Your task to perform on an android device: Is it going to rain tomorrow? Image 0: 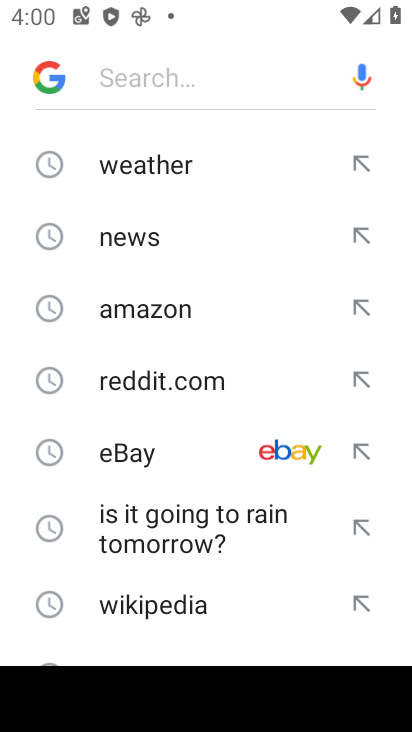
Step 0: click (158, 169)
Your task to perform on an android device: Is it going to rain tomorrow? Image 1: 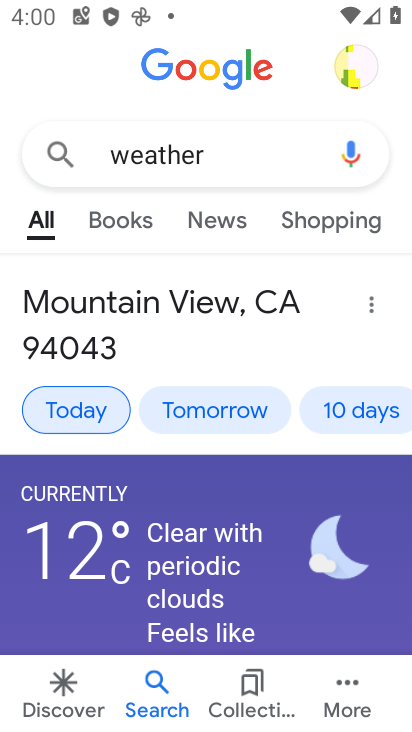
Step 1: click (215, 412)
Your task to perform on an android device: Is it going to rain tomorrow? Image 2: 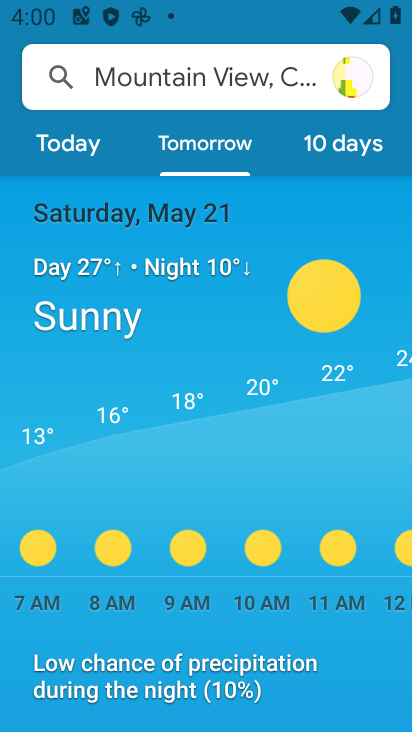
Step 2: task complete